Your task to perform on an android device: check android version Image 0: 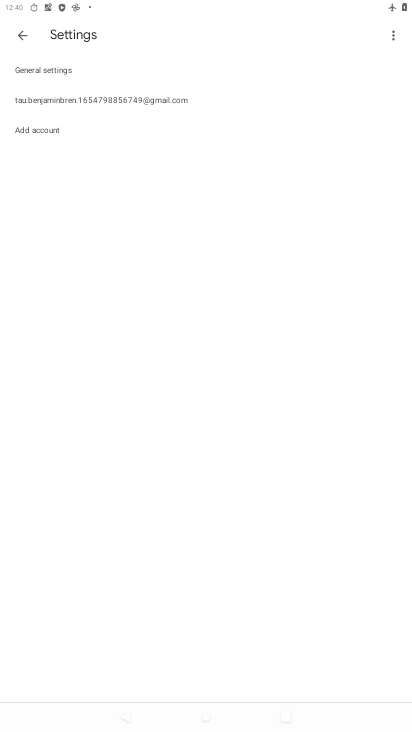
Step 0: press home button
Your task to perform on an android device: check android version Image 1: 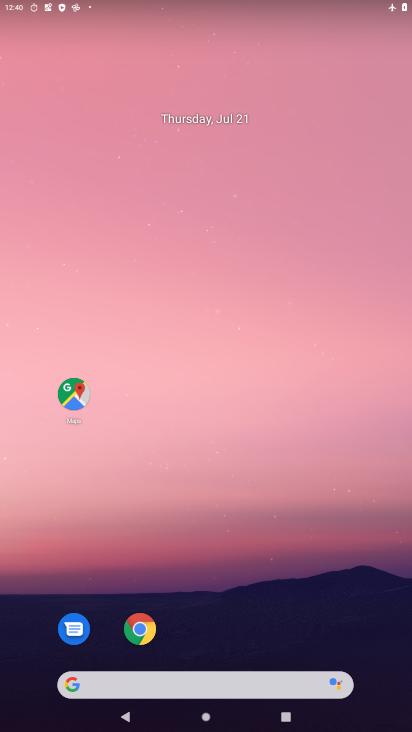
Step 1: drag from (271, 672) to (281, 100)
Your task to perform on an android device: check android version Image 2: 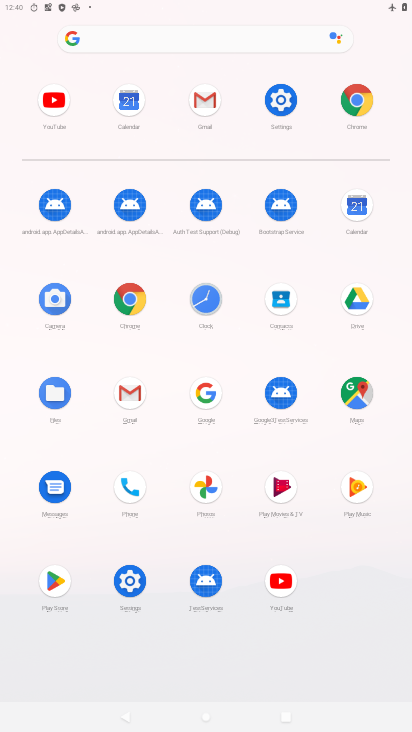
Step 2: click (276, 97)
Your task to perform on an android device: check android version Image 3: 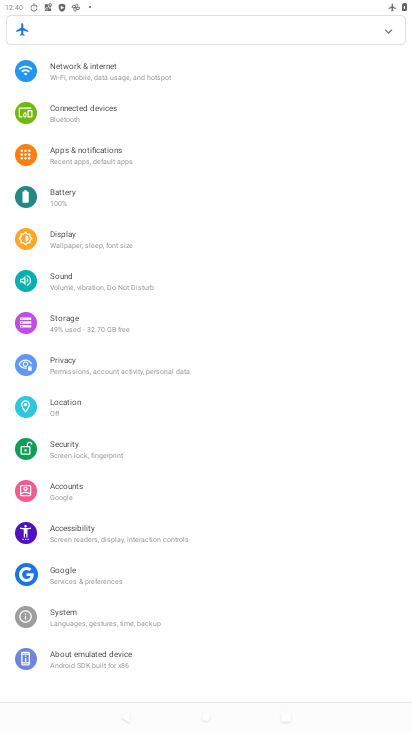
Step 3: click (132, 662)
Your task to perform on an android device: check android version Image 4: 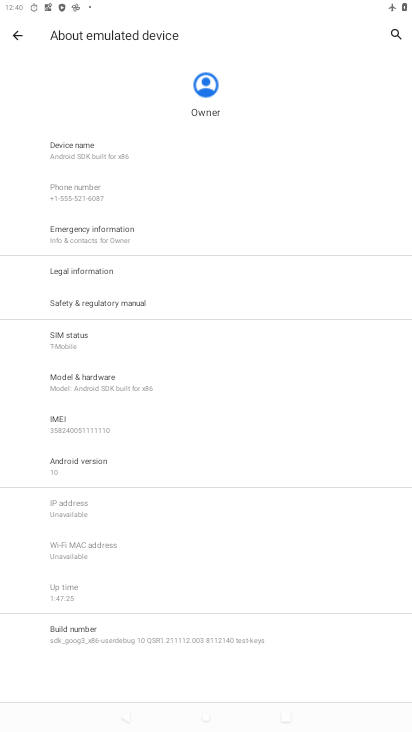
Step 4: click (88, 460)
Your task to perform on an android device: check android version Image 5: 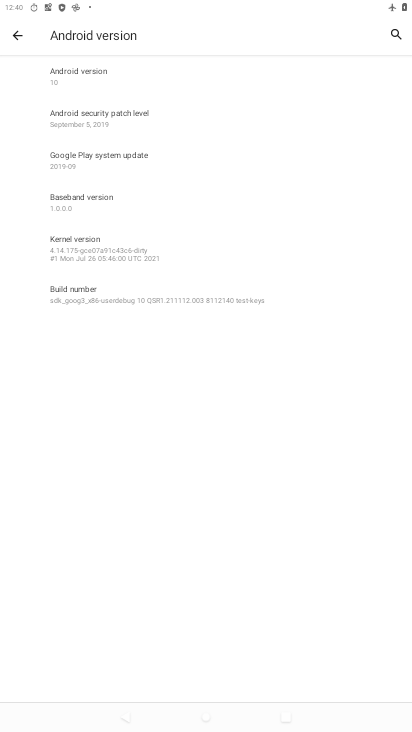
Step 5: task complete